Your task to perform on an android device: Open the calendar app, open the side menu, and click the "Day" option Image 0: 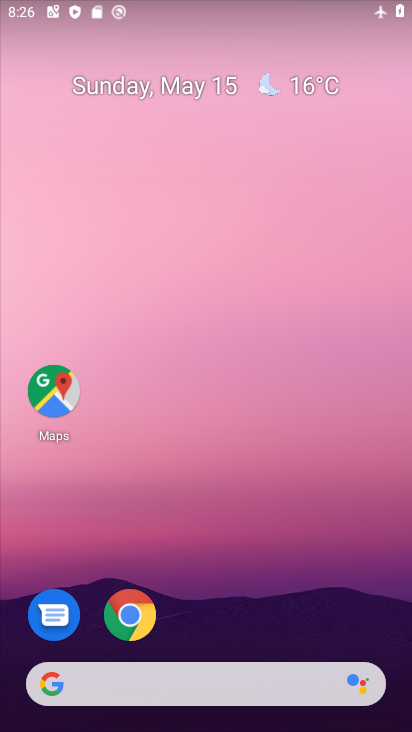
Step 0: drag from (278, 626) to (273, 217)
Your task to perform on an android device: Open the calendar app, open the side menu, and click the "Day" option Image 1: 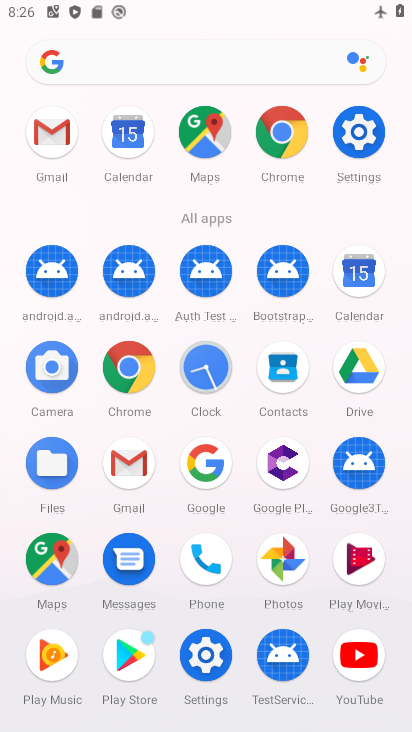
Step 1: click (138, 151)
Your task to perform on an android device: Open the calendar app, open the side menu, and click the "Day" option Image 2: 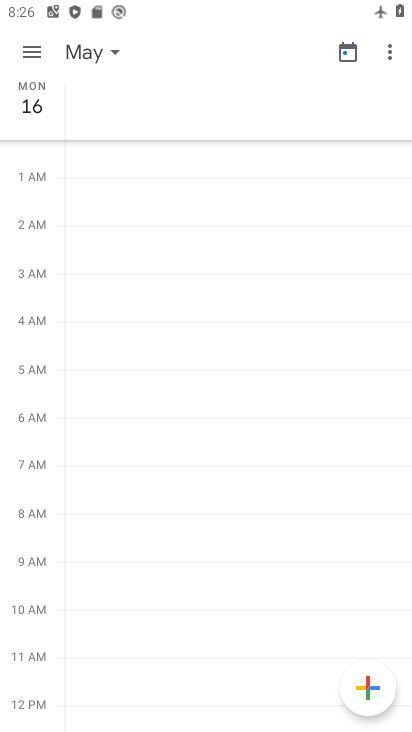
Step 2: click (25, 54)
Your task to perform on an android device: Open the calendar app, open the side menu, and click the "Day" option Image 3: 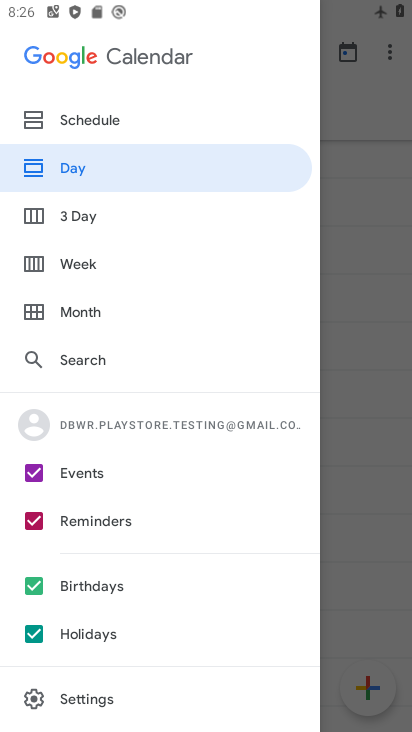
Step 3: click (87, 172)
Your task to perform on an android device: Open the calendar app, open the side menu, and click the "Day" option Image 4: 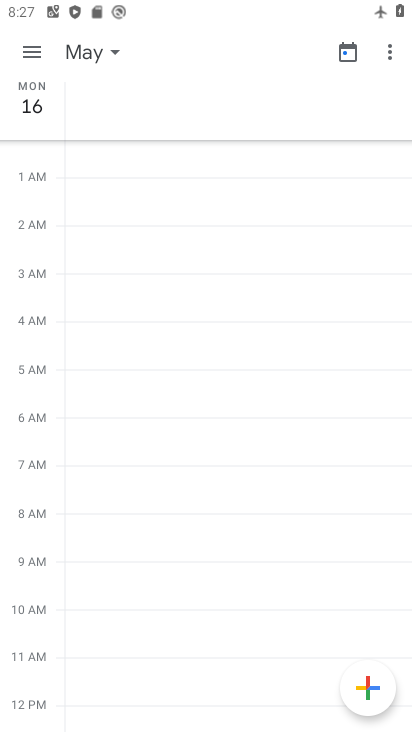
Step 4: task complete